Your task to perform on an android device: Go to eBay Image 0: 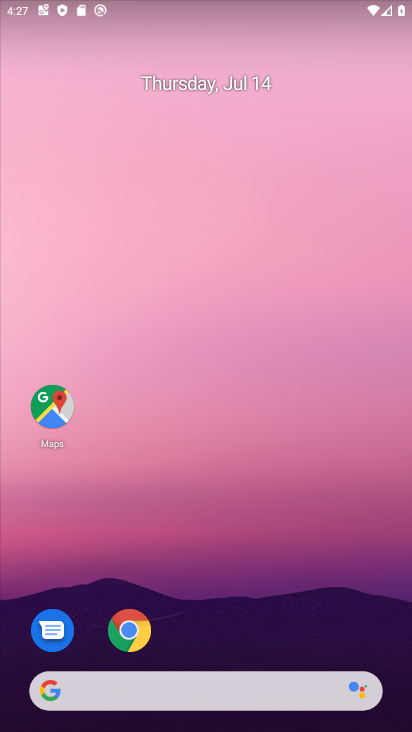
Step 0: click (129, 631)
Your task to perform on an android device: Go to eBay Image 1: 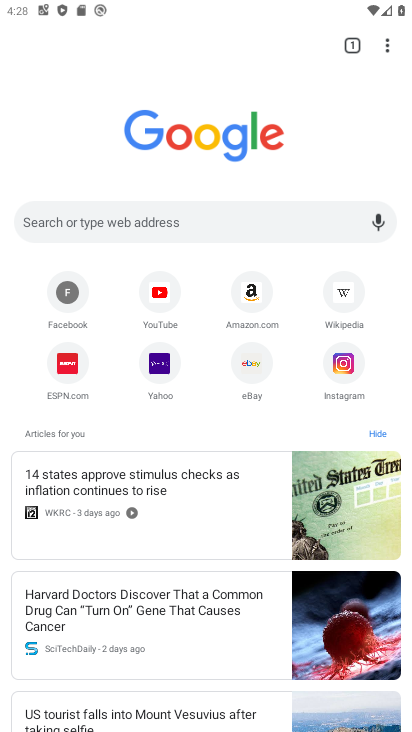
Step 1: click (260, 363)
Your task to perform on an android device: Go to eBay Image 2: 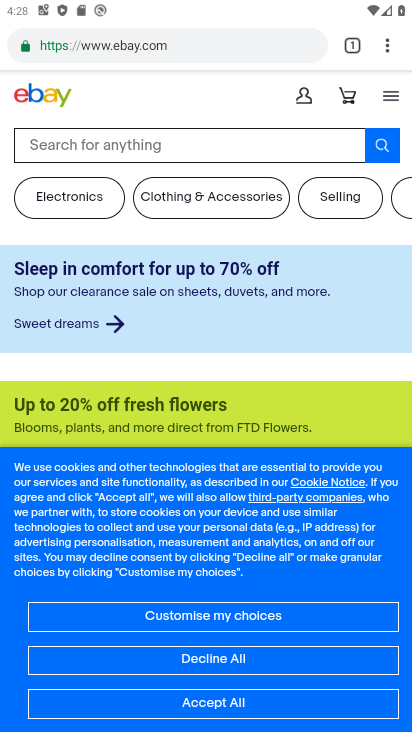
Step 2: task complete